Your task to perform on an android device: toggle improve location accuracy Image 0: 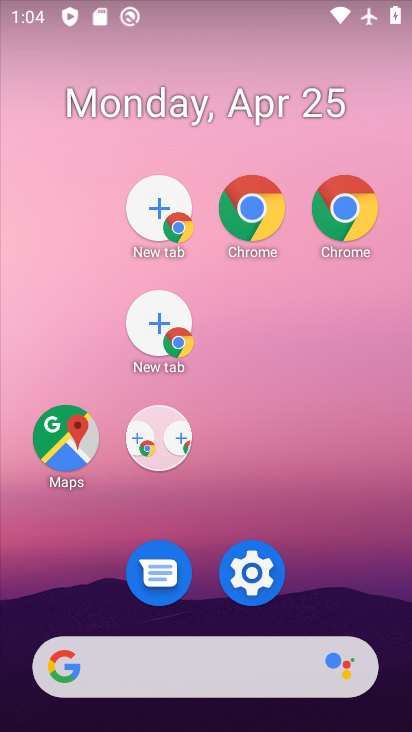
Step 0: drag from (190, 79) to (220, 24)
Your task to perform on an android device: toggle improve location accuracy Image 1: 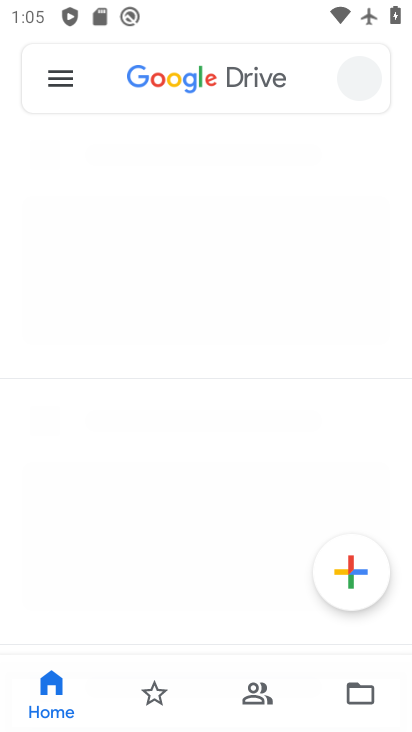
Step 1: press home button
Your task to perform on an android device: toggle improve location accuracy Image 2: 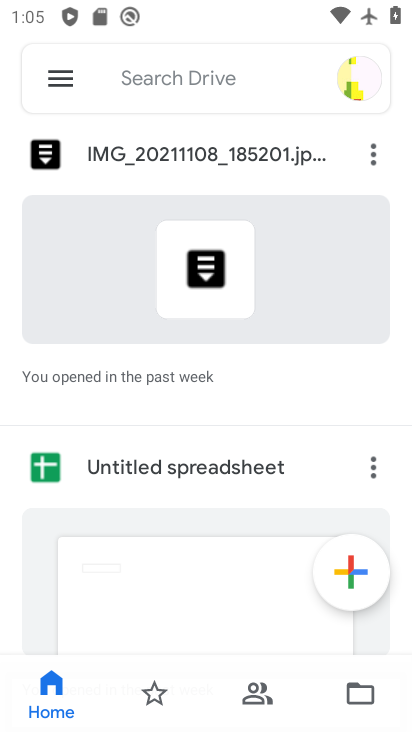
Step 2: press home button
Your task to perform on an android device: toggle improve location accuracy Image 3: 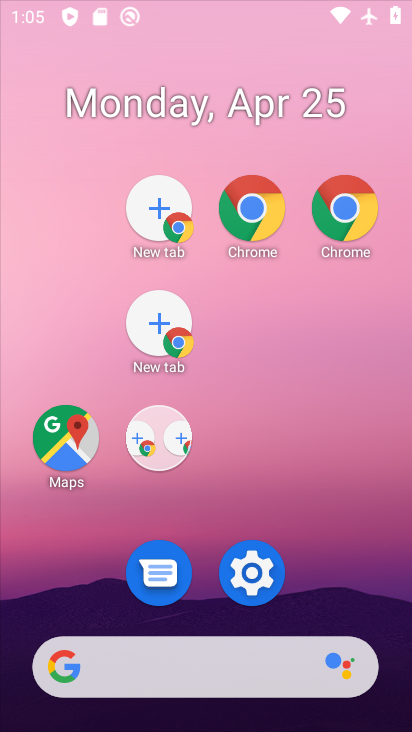
Step 3: press home button
Your task to perform on an android device: toggle improve location accuracy Image 4: 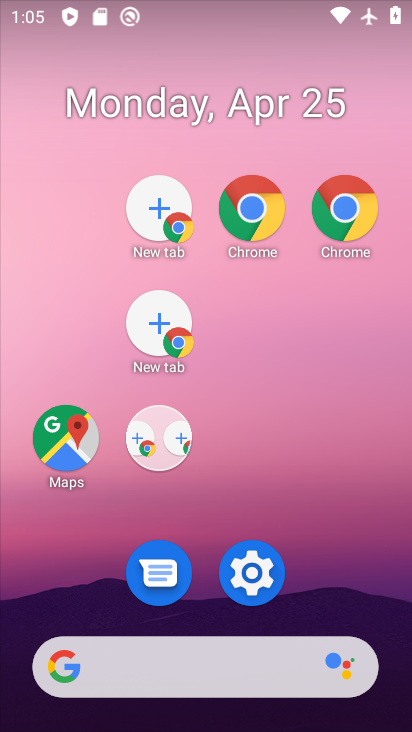
Step 4: press home button
Your task to perform on an android device: toggle improve location accuracy Image 5: 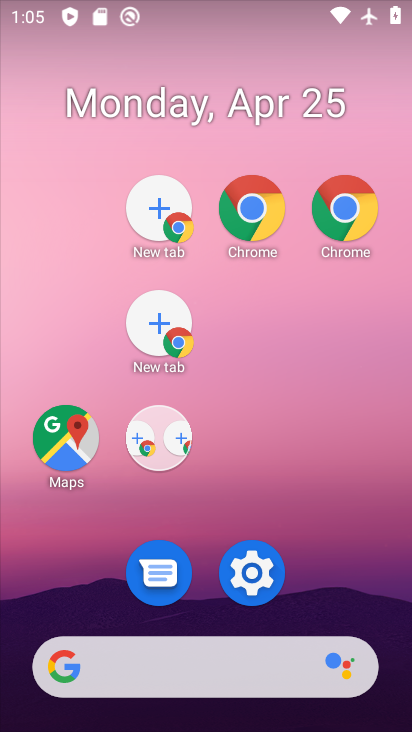
Step 5: press home button
Your task to perform on an android device: toggle improve location accuracy Image 6: 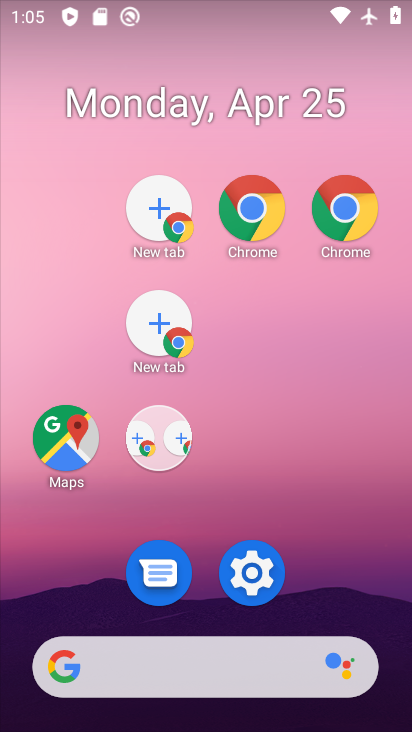
Step 6: press home button
Your task to perform on an android device: toggle improve location accuracy Image 7: 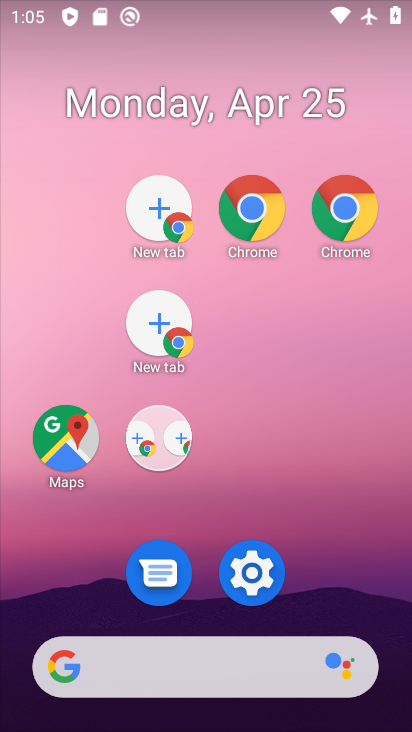
Step 7: drag from (320, 579) to (248, 123)
Your task to perform on an android device: toggle improve location accuracy Image 8: 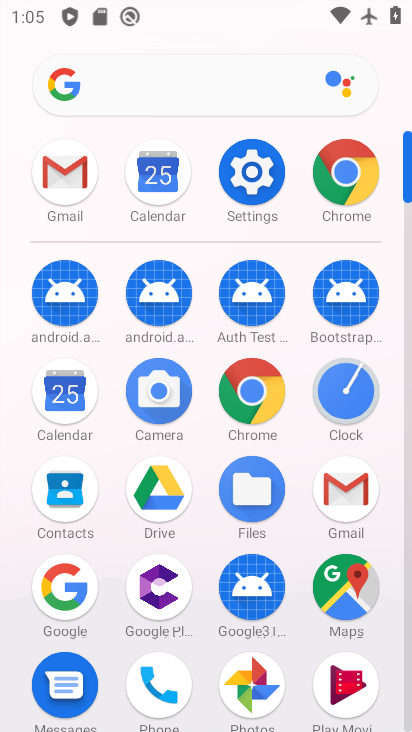
Step 8: click (263, 162)
Your task to perform on an android device: toggle improve location accuracy Image 9: 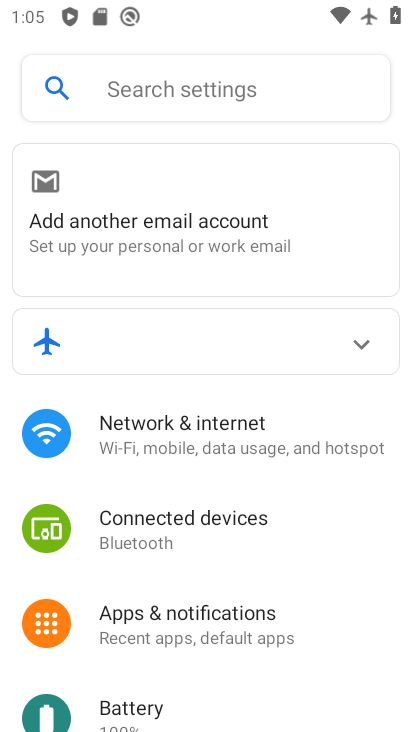
Step 9: drag from (221, 532) to (205, 145)
Your task to perform on an android device: toggle improve location accuracy Image 10: 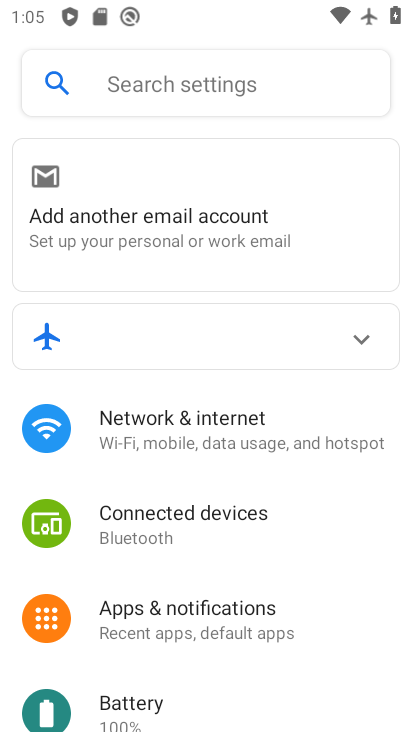
Step 10: drag from (153, 593) to (109, 42)
Your task to perform on an android device: toggle improve location accuracy Image 11: 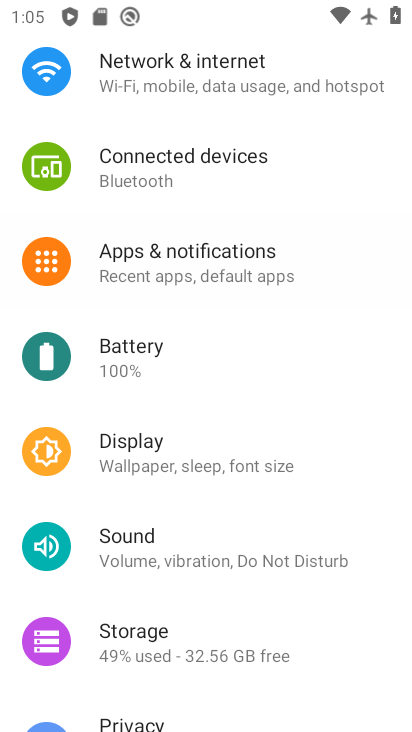
Step 11: drag from (160, 546) to (77, 35)
Your task to perform on an android device: toggle improve location accuracy Image 12: 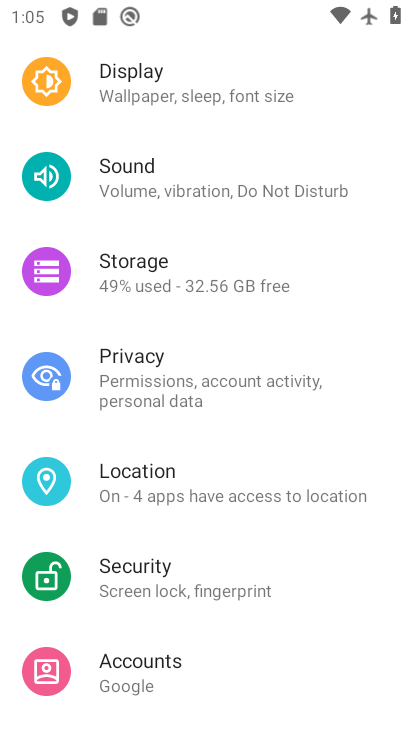
Step 12: click (172, 488)
Your task to perform on an android device: toggle improve location accuracy Image 13: 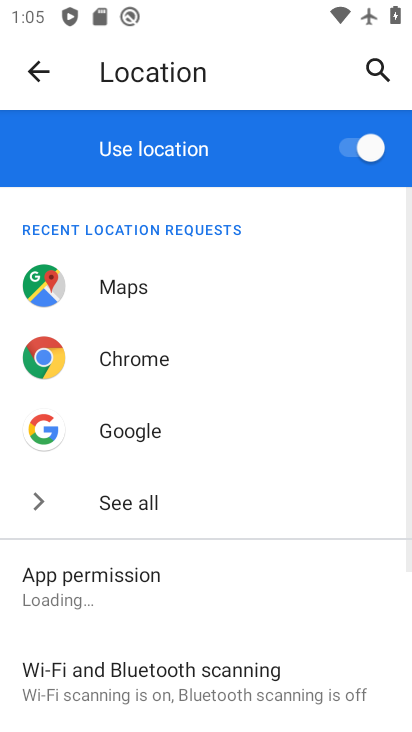
Step 13: drag from (120, 633) to (190, 81)
Your task to perform on an android device: toggle improve location accuracy Image 14: 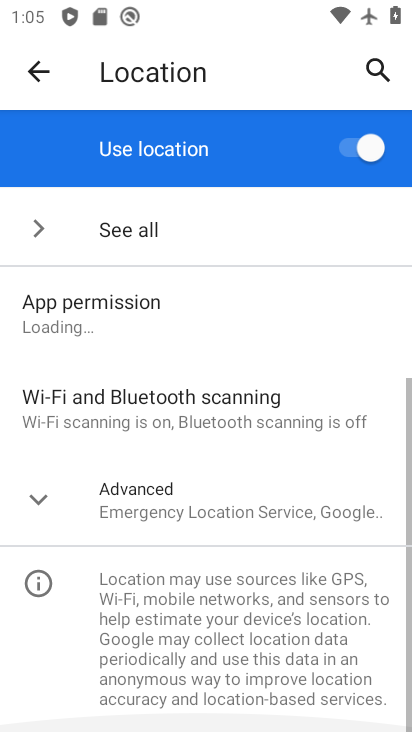
Step 14: drag from (247, 607) to (318, 46)
Your task to perform on an android device: toggle improve location accuracy Image 15: 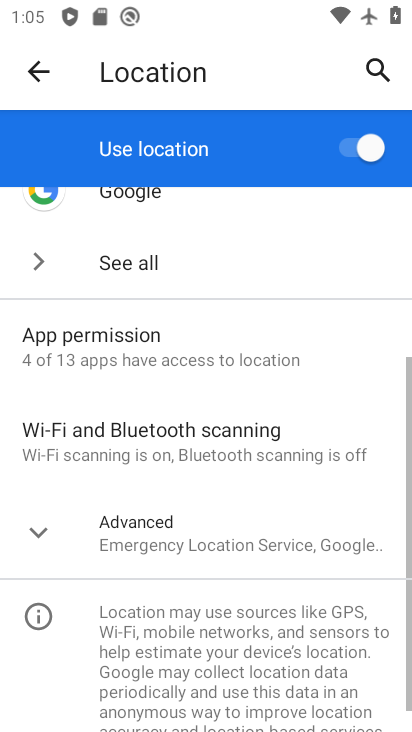
Step 15: click (176, 537)
Your task to perform on an android device: toggle improve location accuracy Image 16: 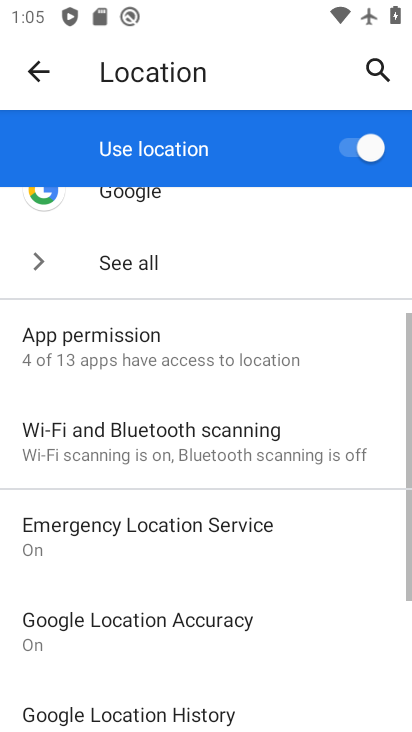
Step 16: drag from (187, 540) to (236, 34)
Your task to perform on an android device: toggle improve location accuracy Image 17: 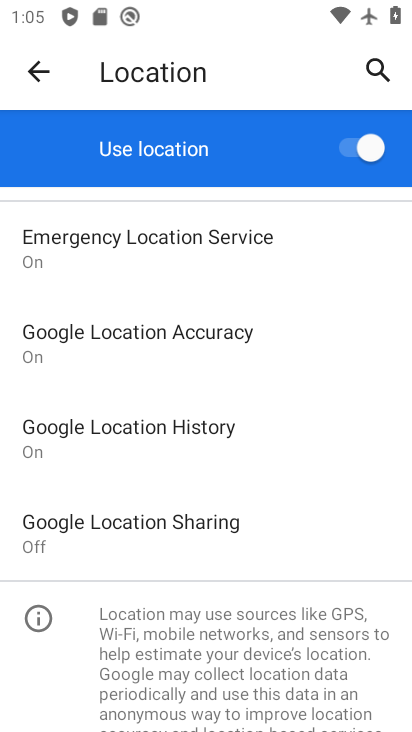
Step 17: click (62, 343)
Your task to perform on an android device: toggle improve location accuracy Image 18: 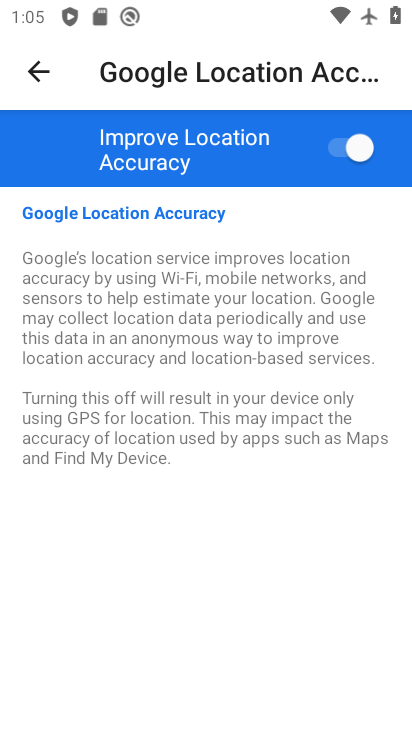
Step 18: click (366, 139)
Your task to perform on an android device: toggle improve location accuracy Image 19: 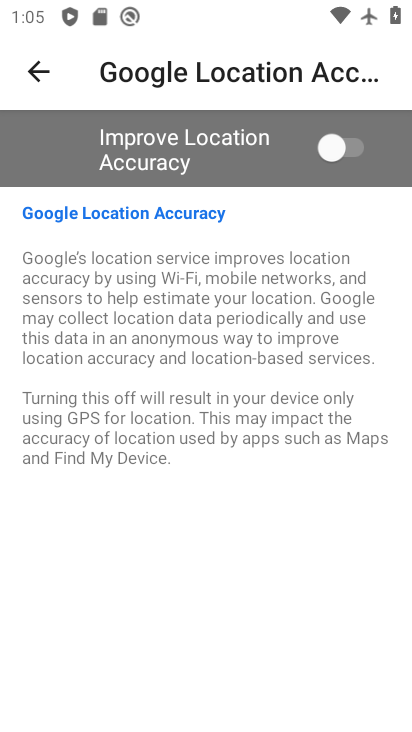
Step 19: task complete